Your task to perform on an android device: What's the news about the US president? Image 0: 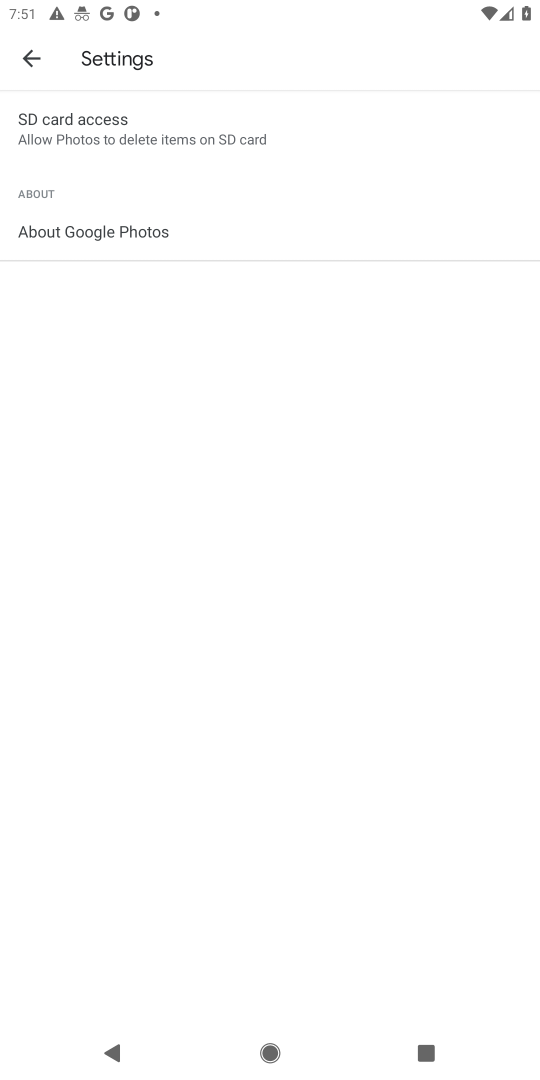
Step 0: press home button
Your task to perform on an android device: What's the news about the US president? Image 1: 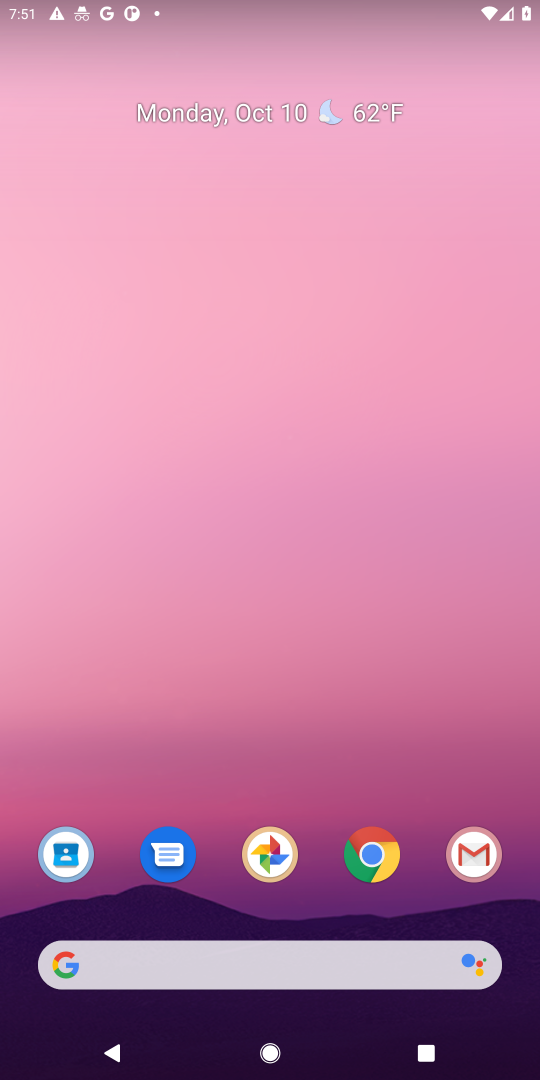
Step 1: click (368, 855)
Your task to perform on an android device: What's the news about the US president? Image 2: 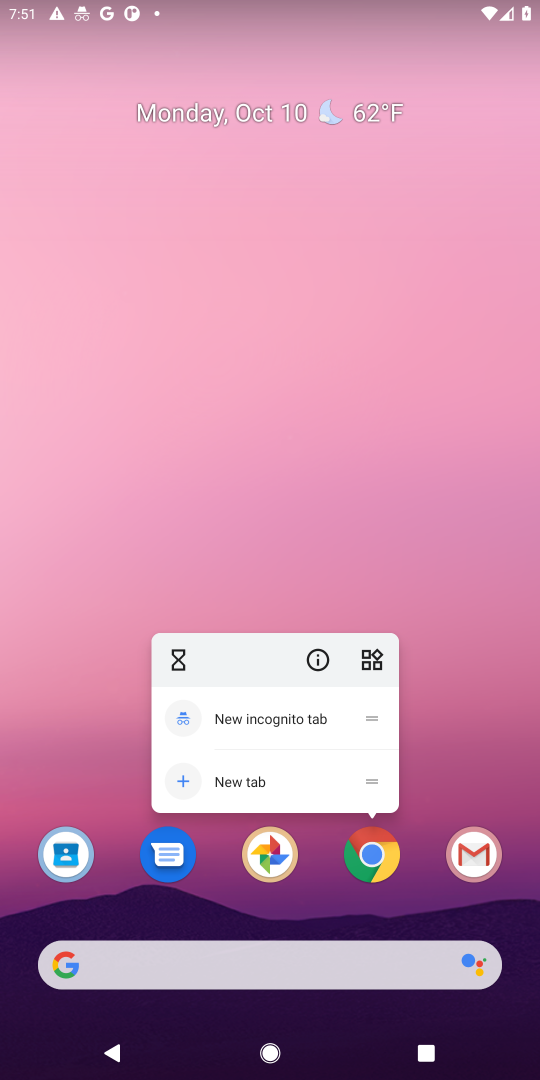
Step 2: click (368, 855)
Your task to perform on an android device: What's the news about the US president? Image 3: 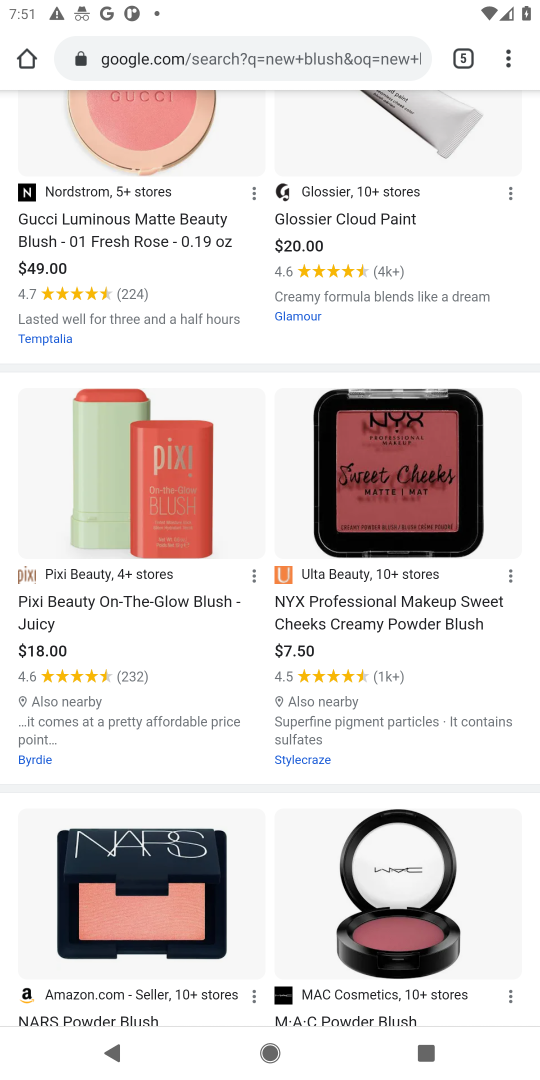
Step 3: click (362, 49)
Your task to perform on an android device: What's the news about the US president? Image 4: 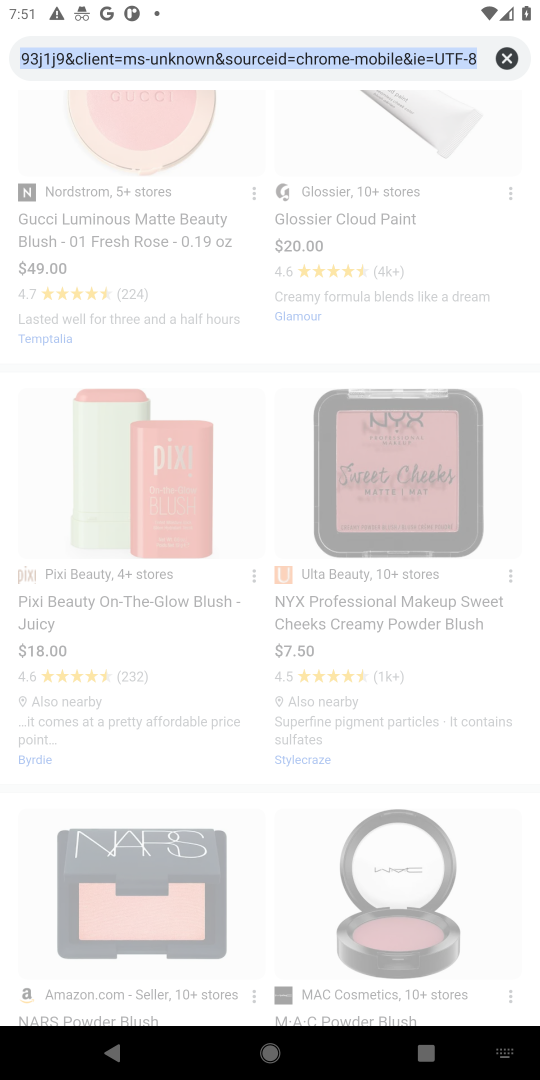
Step 4: click (502, 54)
Your task to perform on an android device: What's the news about the US president? Image 5: 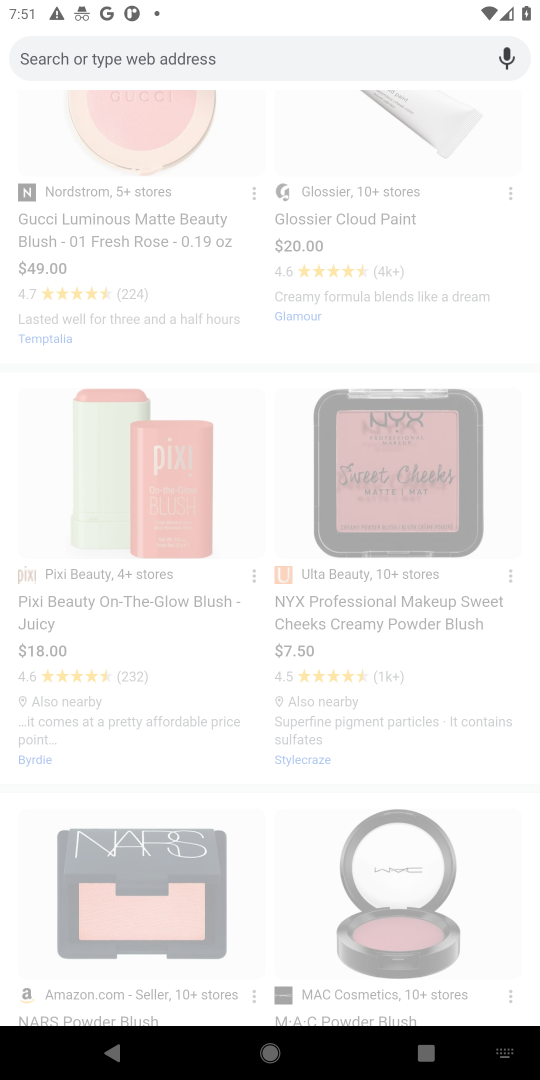
Step 5: type "news about the US president"
Your task to perform on an android device: What's the news about the US president? Image 6: 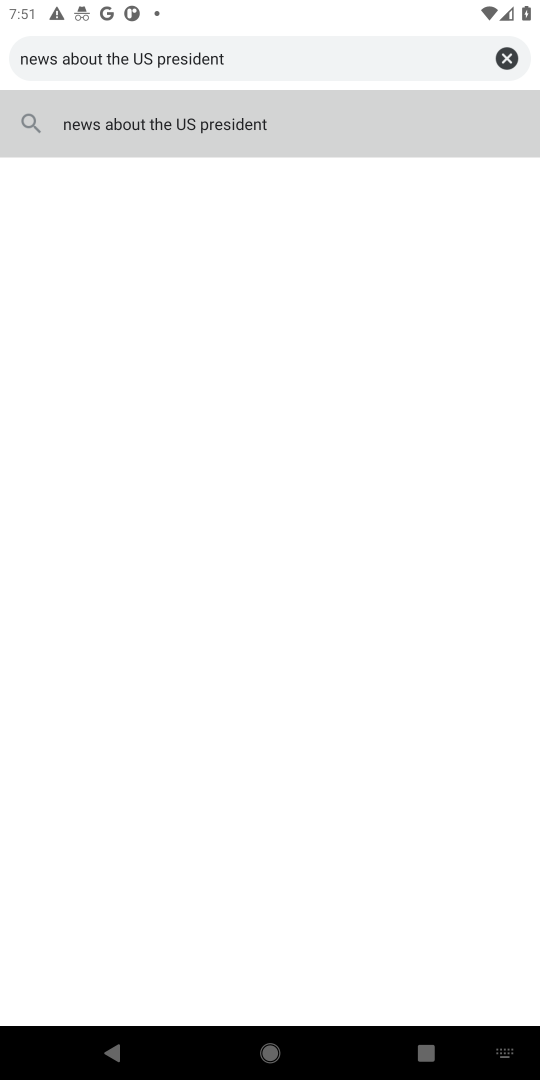
Step 6: click (205, 124)
Your task to perform on an android device: What's the news about the US president? Image 7: 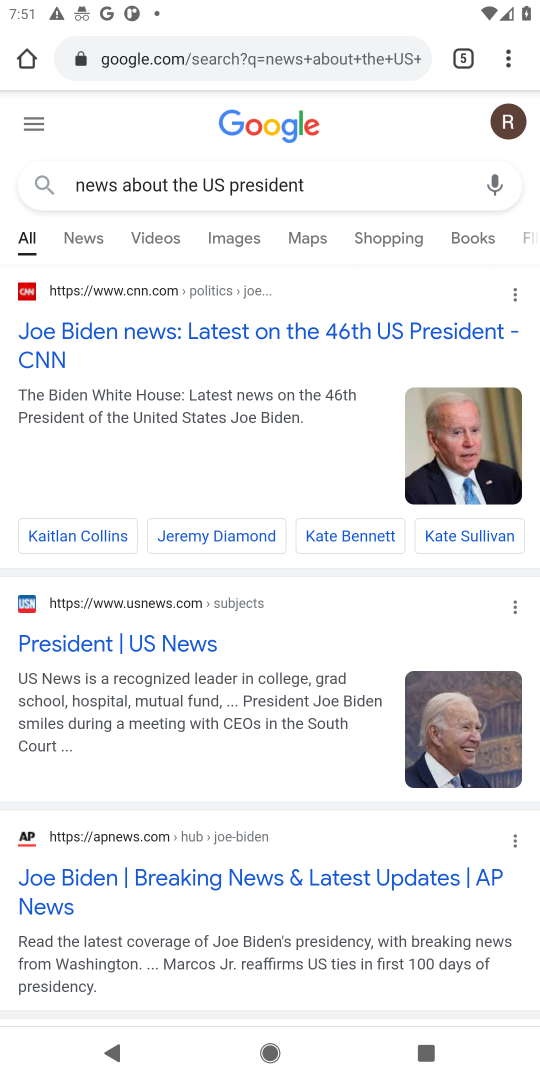
Step 7: click (61, 233)
Your task to perform on an android device: What's the news about the US president? Image 8: 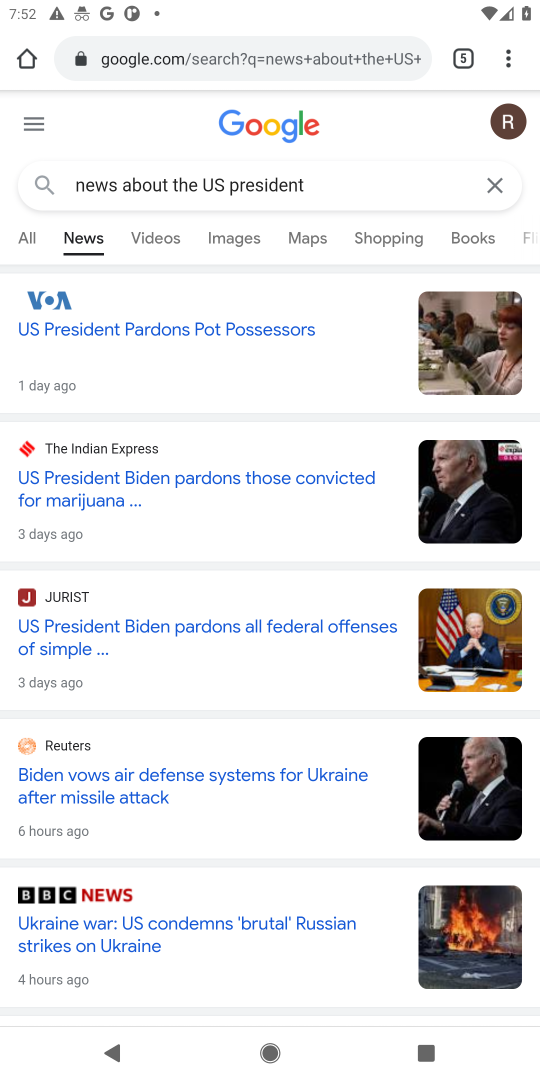
Step 8: task complete